Your task to perform on an android device: open a bookmark in the chrome app Image 0: 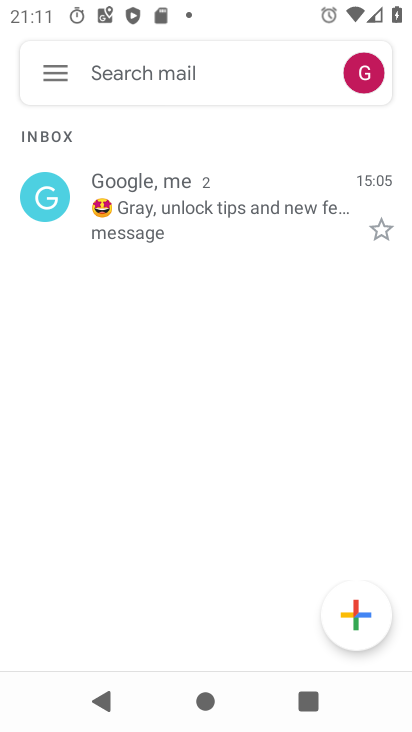
Step 0: press home button
Your task to perform on an android device: open a bookmark in the chrome app Image 1: 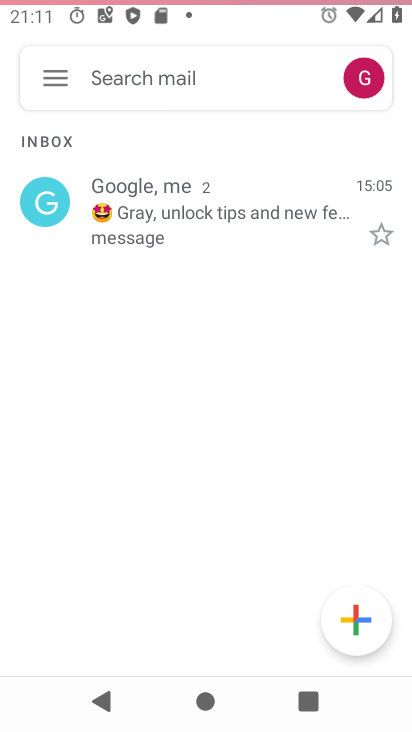
Step 1: press home button
Your task to perform on an android device: open a bookmark in the chrome app Image 2: 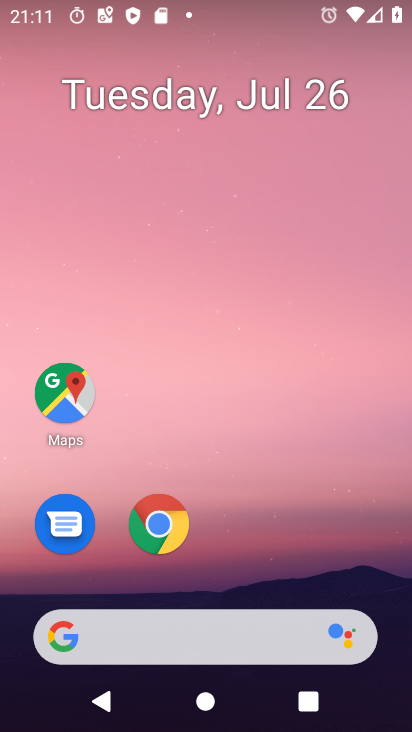
Step 2: click (171, 522)
Your task to perform on an android device: open a bookmark in the chrome app Image 3: 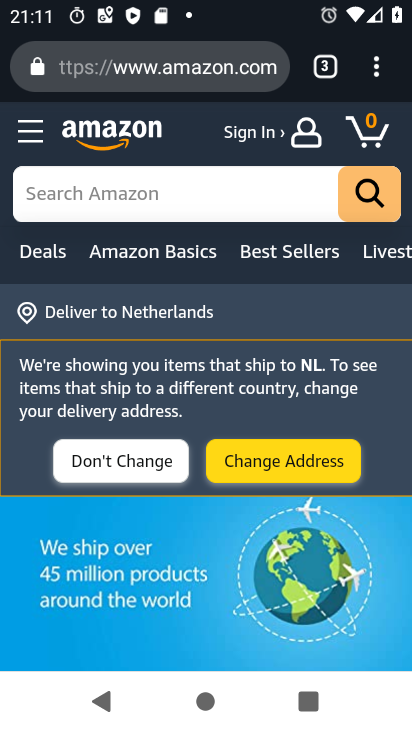
Step 3: click (378, 68)
Your task to perform on an android device: open a bookmark in the chrome app Image 4: 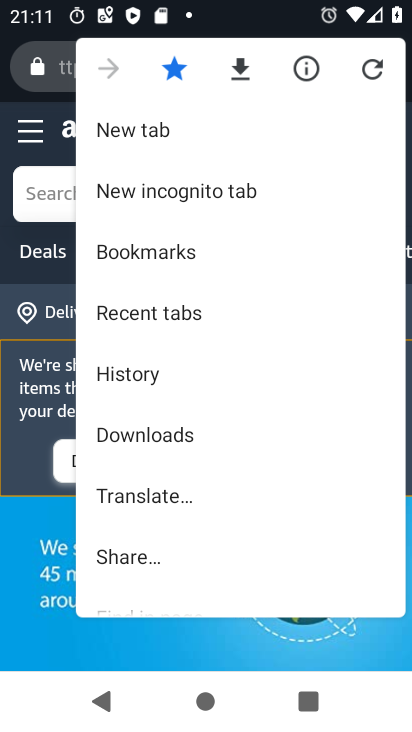
Step 4: click (189, 253)
Your task to perform on an android device: open a bookmark in the chrome app Image 5: 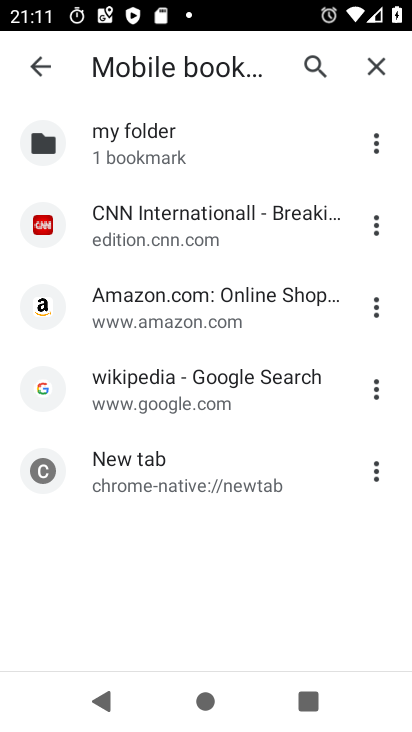
Step 5: click (165, 464)
Your task to perform on an android device: open a bookmark in the chrome app Image 6: 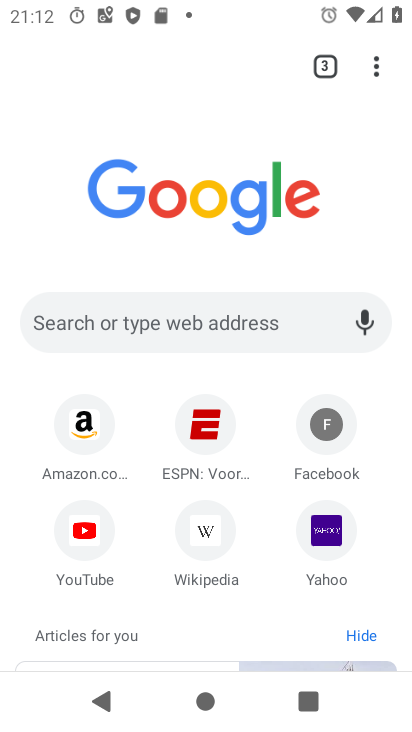
Step 6: task complete